Your task to perform on an android device: turn on location history Image 0: 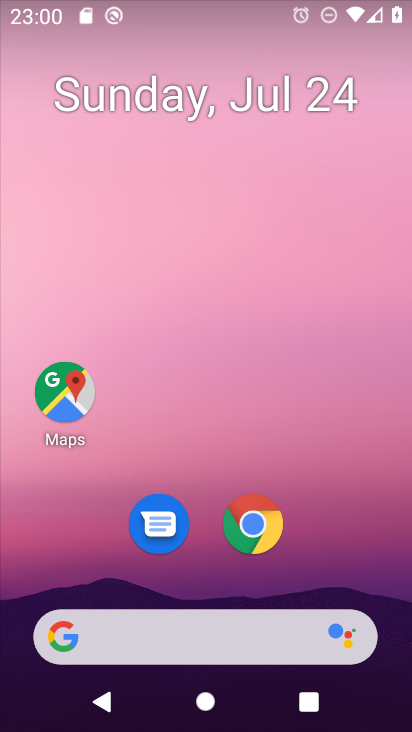
Step 0: press home button
Your task to perform on an android device: turn on location history Image 1: 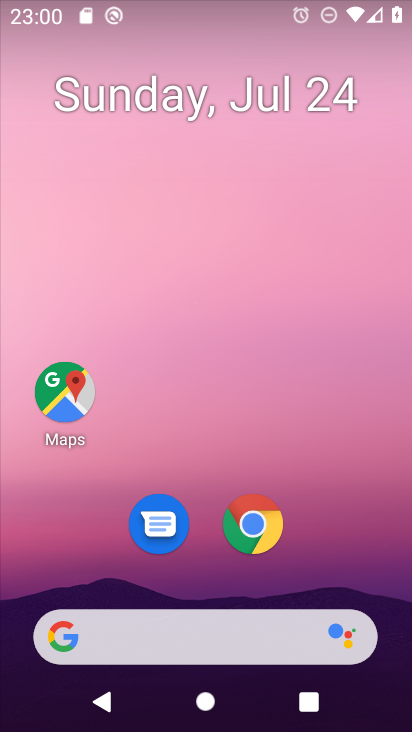
Step 1: drag from (234, 631) to (349, 30)
Your task to perform on an android device: turn on location history Image 2: 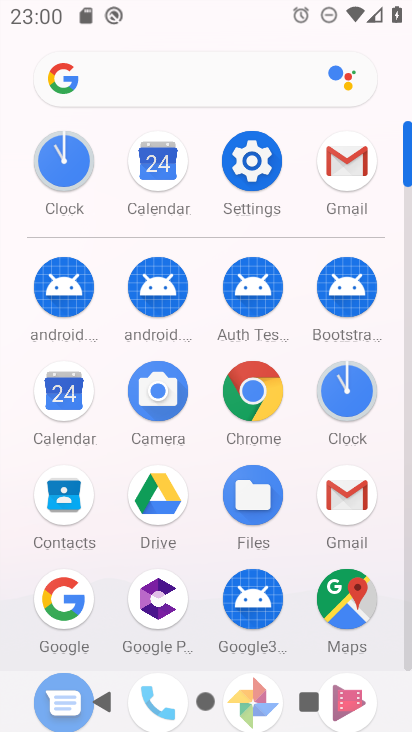
Step 2: click (241, 171)
Your task to perform on an android device: turn on location history Image 3: 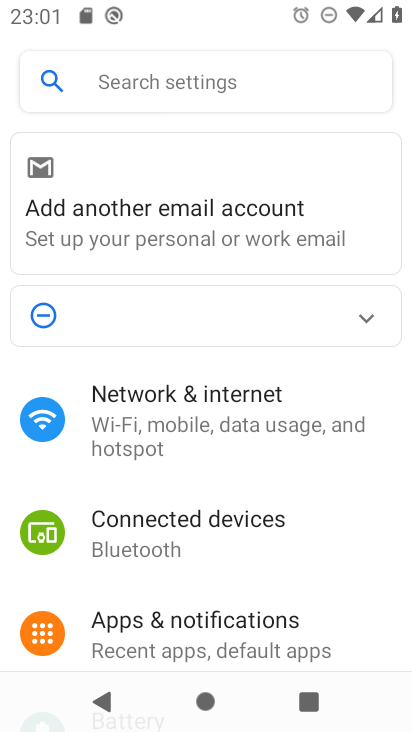
Step 3: drag from (279, 529) to (325, 241)
Your task to perform on an android device: turn on location history Image 4: 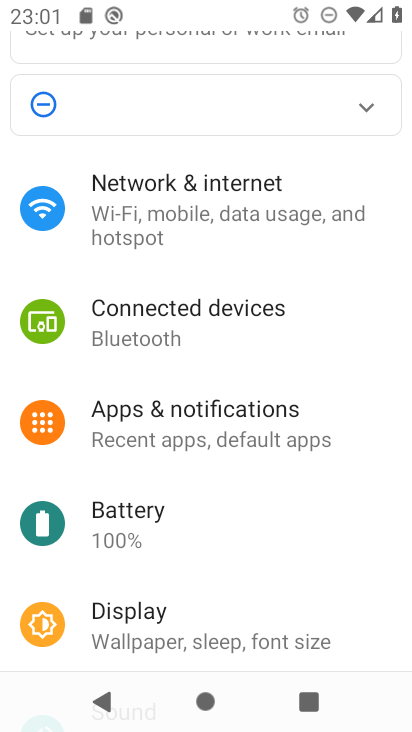
Step 4: drag from (270, 589) to (325, 192)
Your task to perform on an android device: turn on location history Image 5: 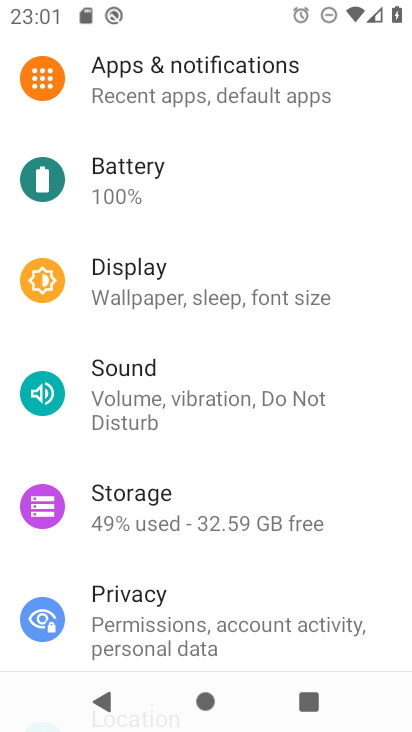
Step 5: drag from (262, 594) to (378, 57)
Your task to perform on an android device: turn on location history Image 6: 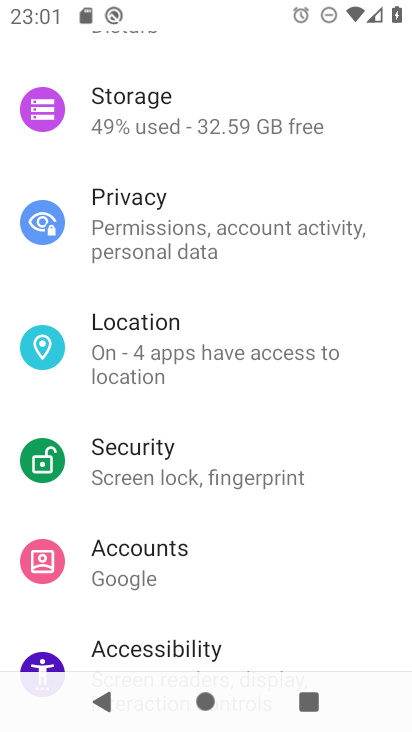
Step 6: click (156, 346)
Your task to perform on an android device: turn on location history Image 7: 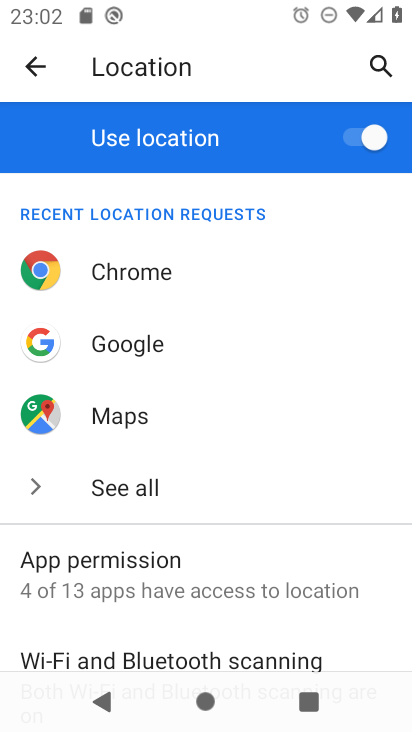
Step 7: task complete